Your task to perform on an android device: Check the weather Image 0: 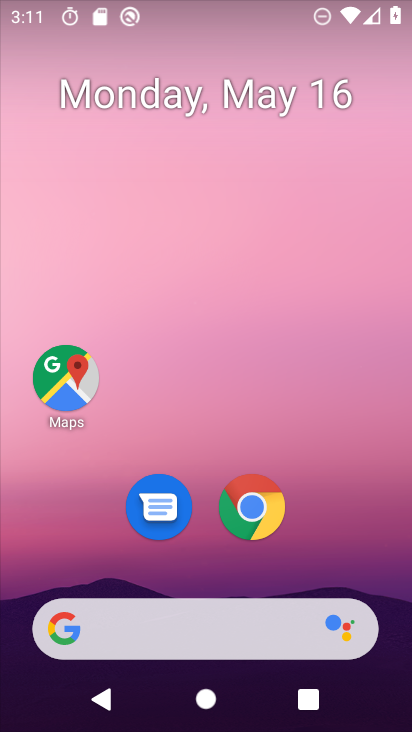
Step 0: drag from (390, 496) to (394, 76)
Your task to perform on an android device: Check the weather Image 1: 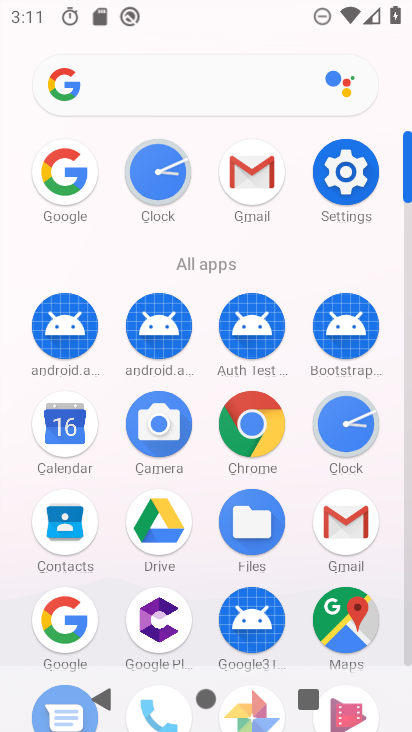
Step 1: press home button
Your task to perform on an android device: Check the weather Image 2: 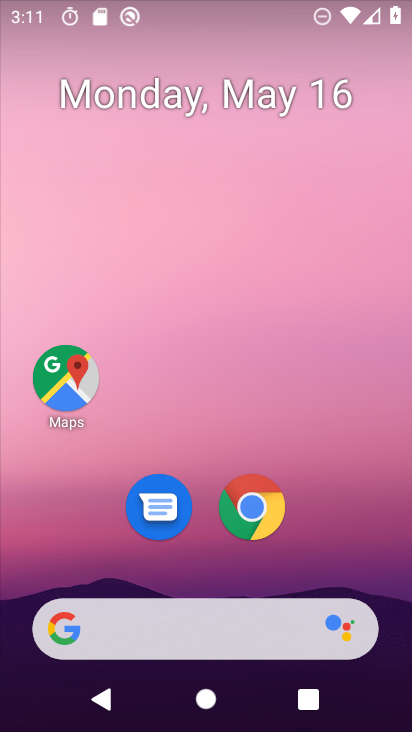
Step 2: drag from (344, 550) to (365, 58)
Your task to perform on an android device: Check the weather Image 3: 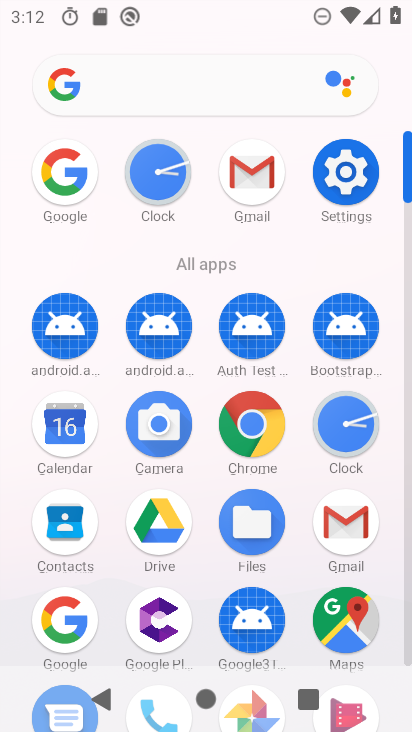
Step 3: click (82, 185)
Your task to perform on an android device: Check the weather Image 4: 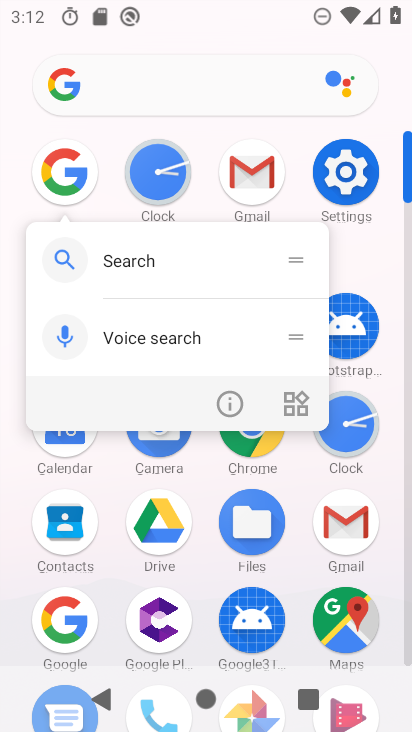
Step 4: click (81, 177)
Your task to perform on an android device: Check the weather Image 5: 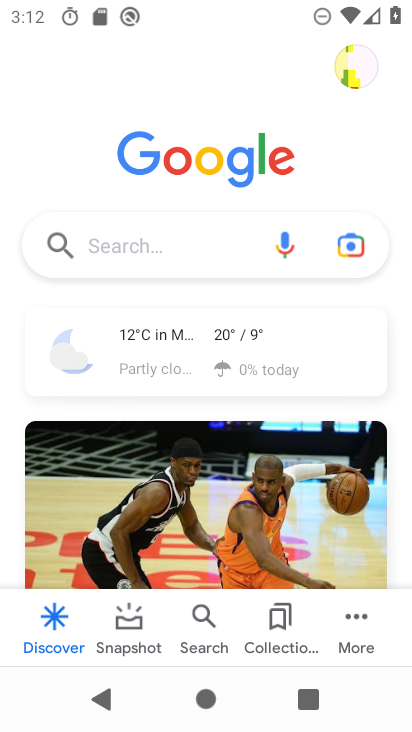
Step 5: click (174, 338)
Your task to perform on an android device: Check the weather Image 6: 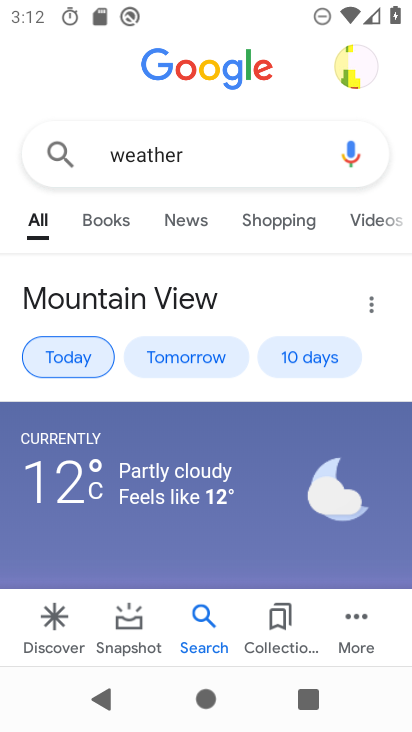
Step 6: task complete